Your task to perform on an android device: turn off smart reply in the gmail app Image 0: 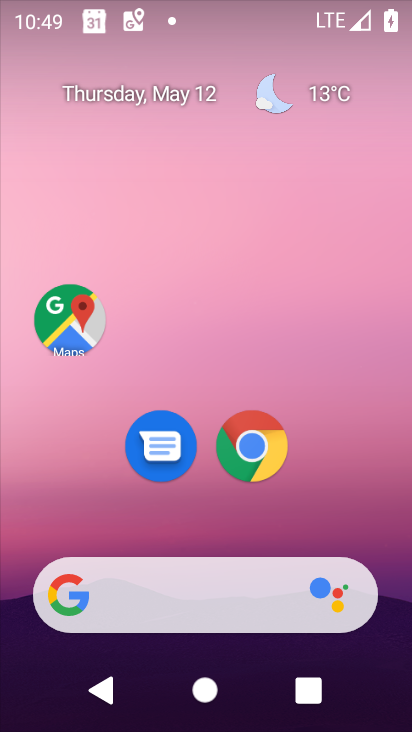
Step 0: drag from (278, 579) to (236, 14)
Your task to perform on an android device: turn off smart reply in the gmail app Image 1: 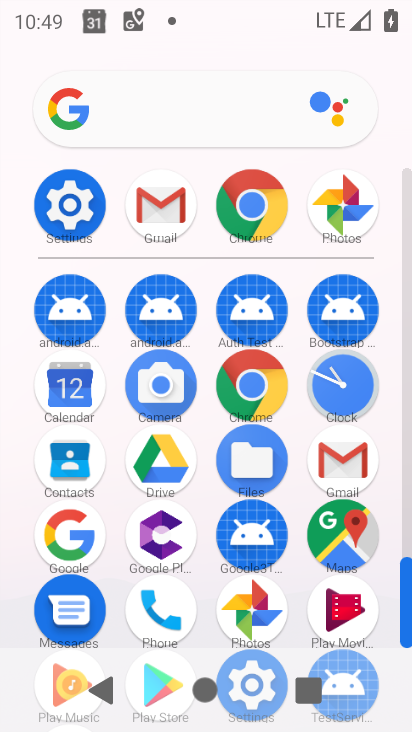
Step 1: click (348, 465)
Your task to perform on an android device: turn off smart reply in the gmail app Image 2: 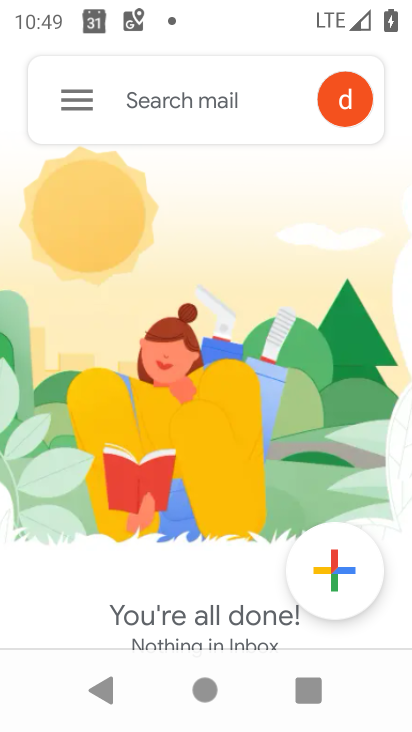
Step 2: click (76, 98)
Your task to perform on an android device: turn off smart reply in the gmail app Image 3: 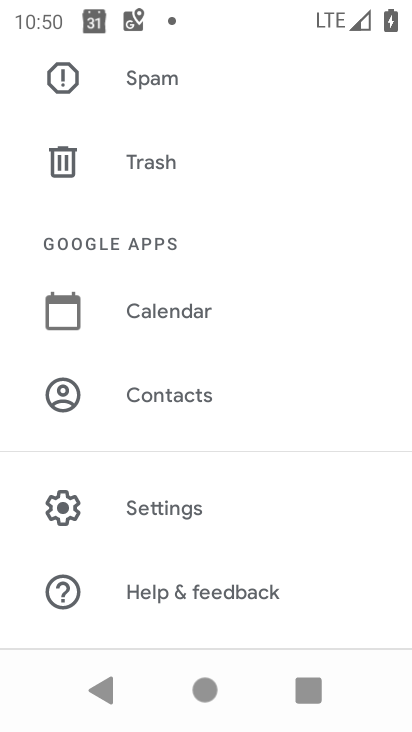
Step 3: click (213, 510)
Your task to perform on an android device: turn off smart reply in the gmail app Image 4: 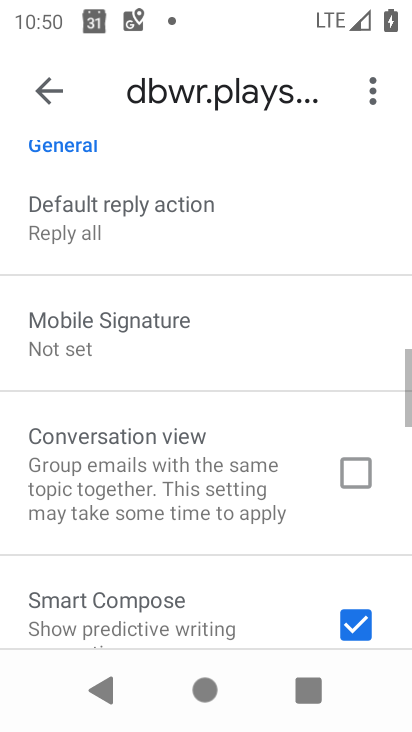
Step 4: drag from (208, 586) to (248, 210)
Your task to perform on an android device: turn off smart reply in the gmail app Image 5: 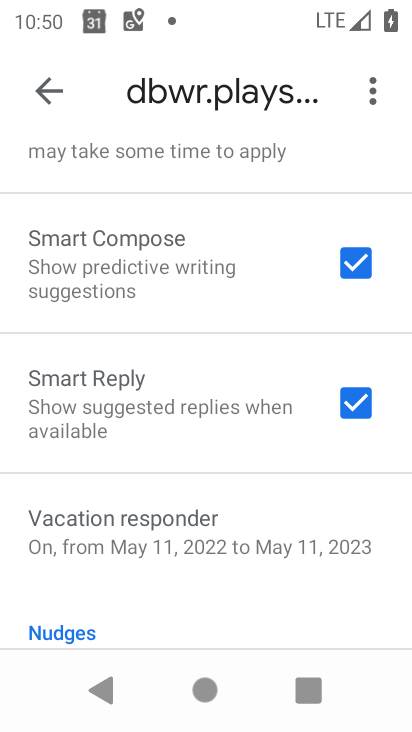
Step 5: click (360, 394)
Your task to perform on an android device: turn off smart reply in the gmail app Image 6: 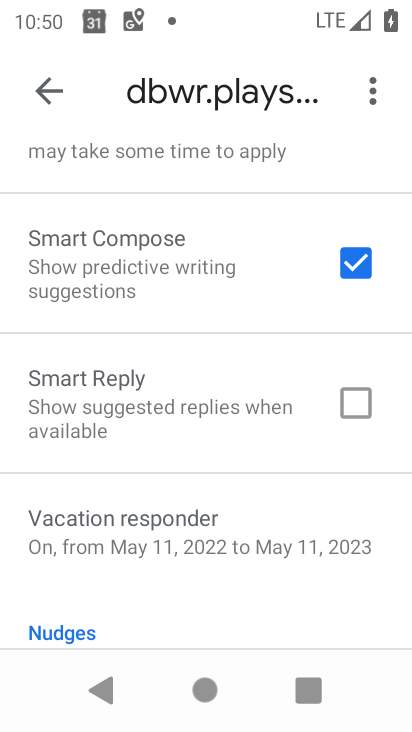
Step 6: task complete